Your task to perform on an android device: turn on data saver in the chrome app Image 0: 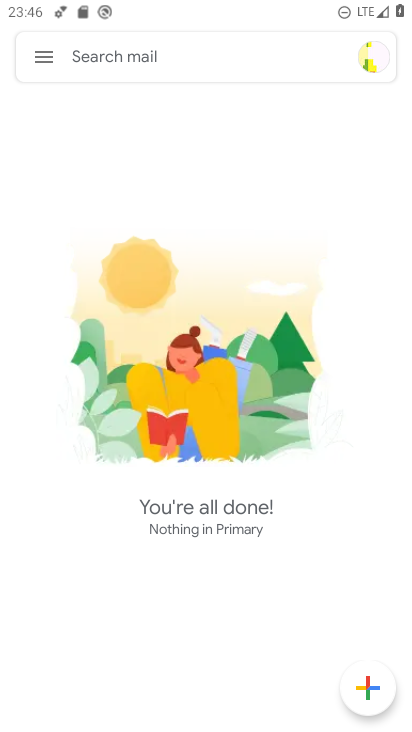
Step 0: press home button
Your task to perform on an android device: turn on data saver in the chrome app Image 1: 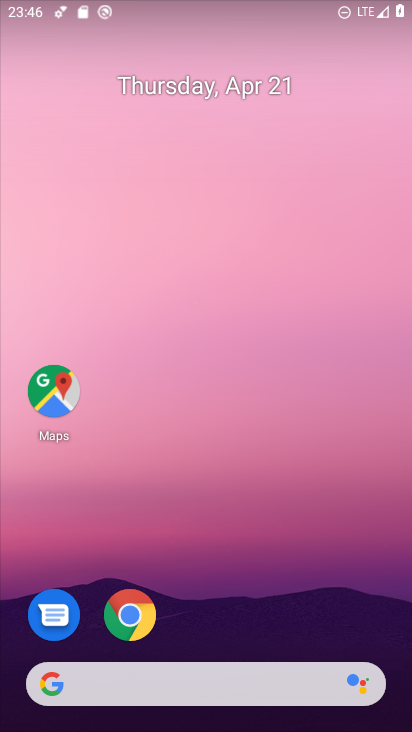
Step 1: drag from (235, 643) to (235, 116)
Your task to perform on an android device: turn on data saver in the chrome app Image 2: 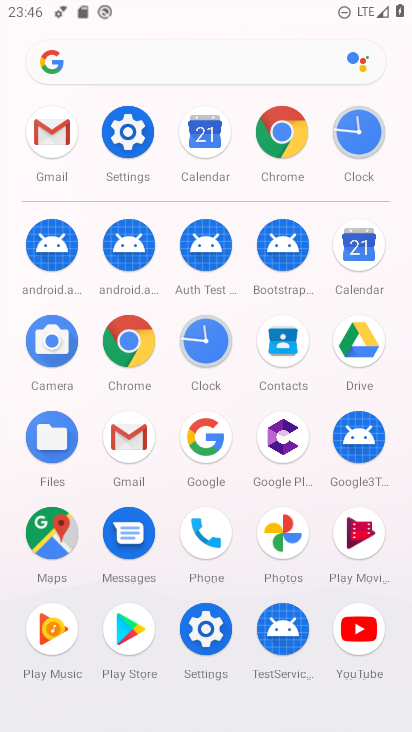
Step 2: click (124, 339)
Your task to perform on an android device: turn on data saver in the chrome app Image 3: 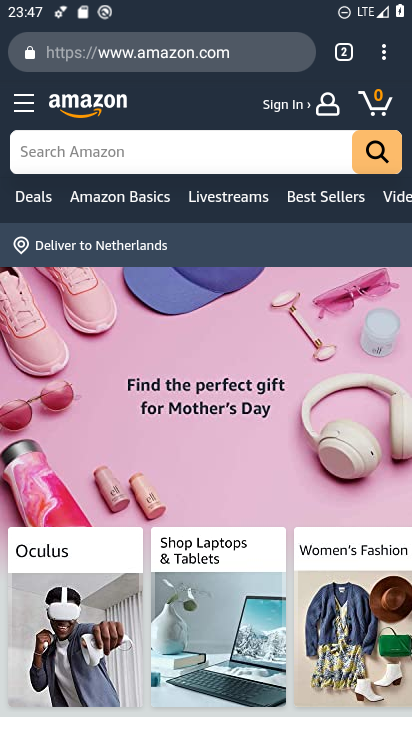
Step 3: click (381, 52)
Your task to perform on an android device: turn on data saver in the chrome app Image 4: 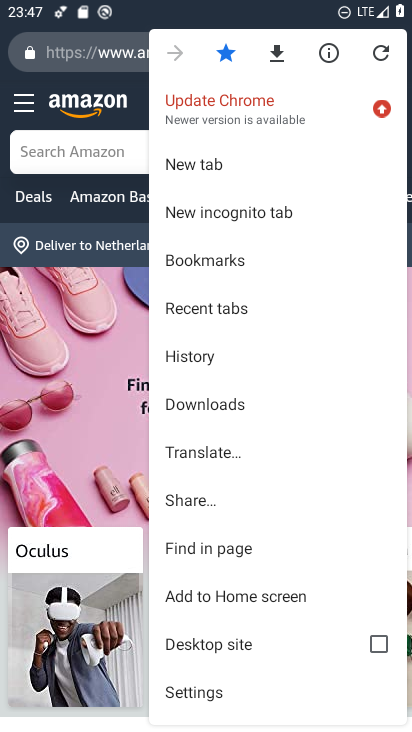
Step 4: click (234, 694)
Your task to perform on an android device: turn on data saver in the chrome app Image 5: 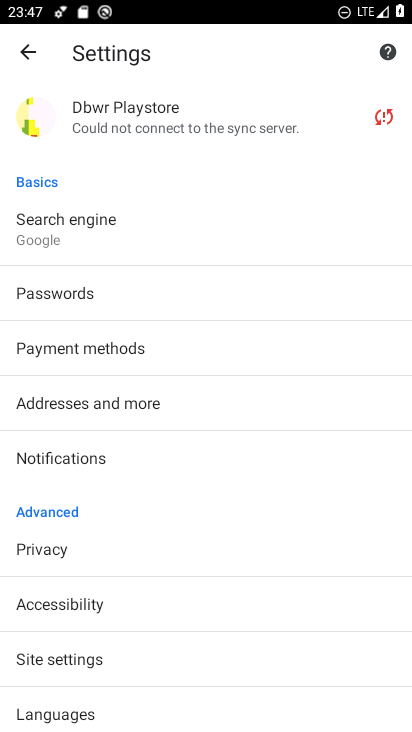
Step 5: drag from (133, 663) to (182, 255)
Your task to perform on an android device: turn on data saver in the chrome app Image 6: 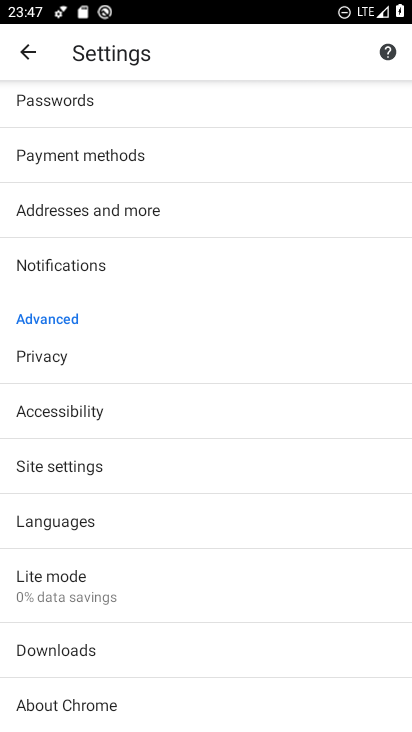
Step 6: click (107, 580)
Your task to perform on an android device: turn on data saver in the chrome app Image 7: 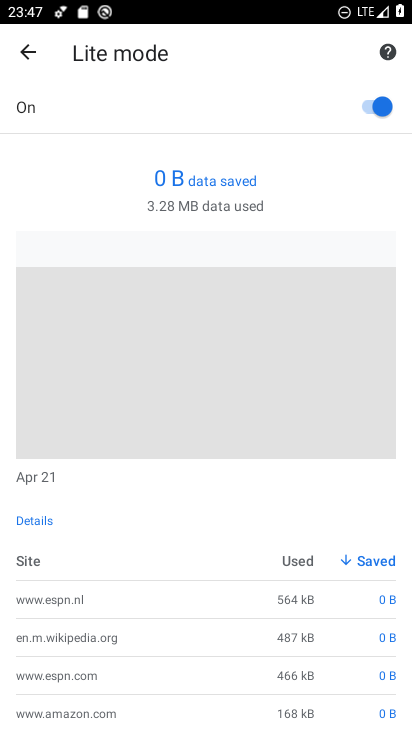
Step 7: task complete